Your task to perform on an android device: Open a new incognito window in Chrome Image 0: 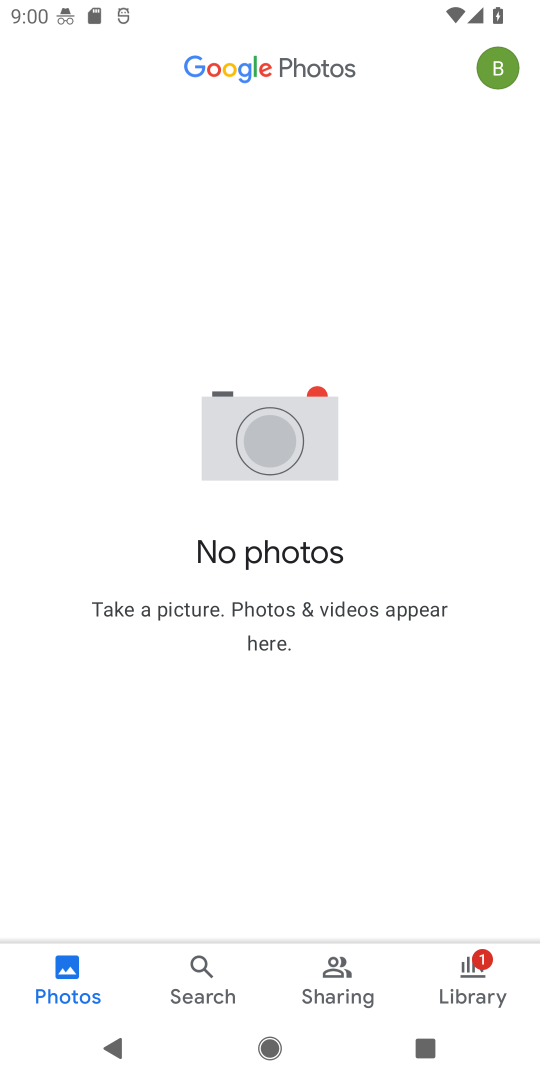
Step 0: press home button
Your task to perform on an android device: Open a new incognito window in Chrome Image 1: 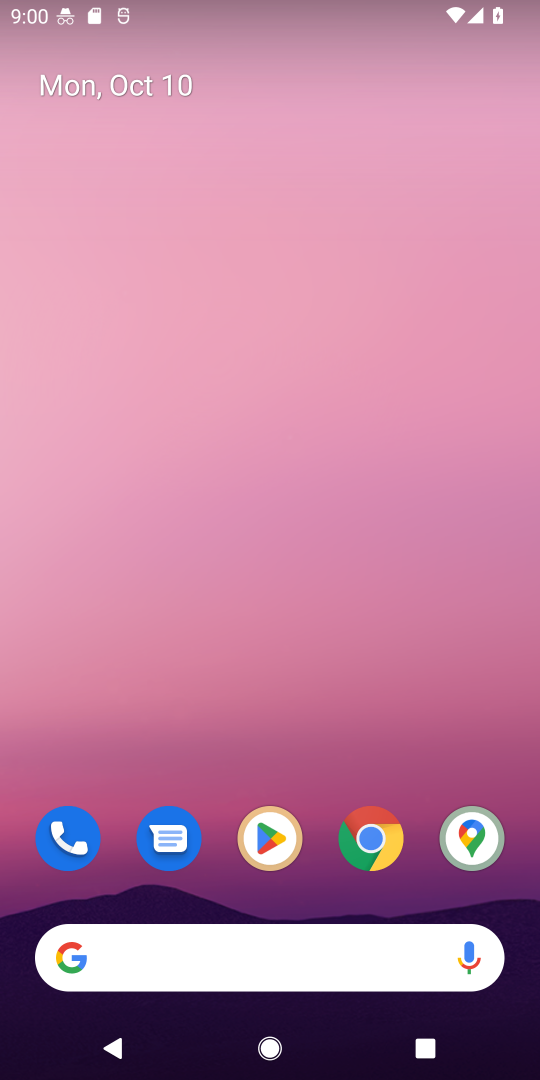
Step 1: click (362, 832)
Your task to perform on an android device: Open a new incognito window in Chrome Image 2: 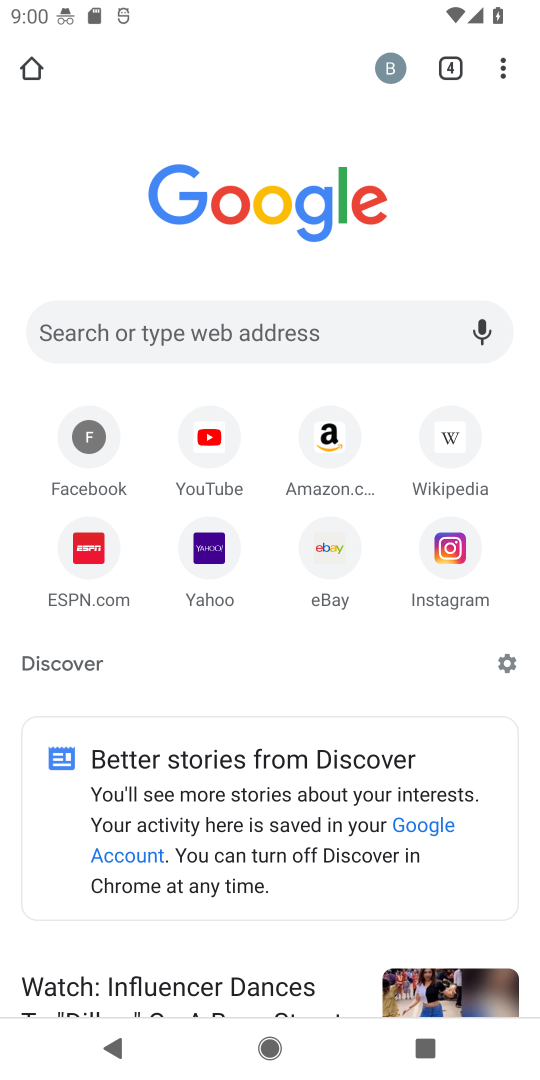
Step 2: click (490, 74)
Your task to perform on an android device: Open a new incognito window in Chrome Image 3: 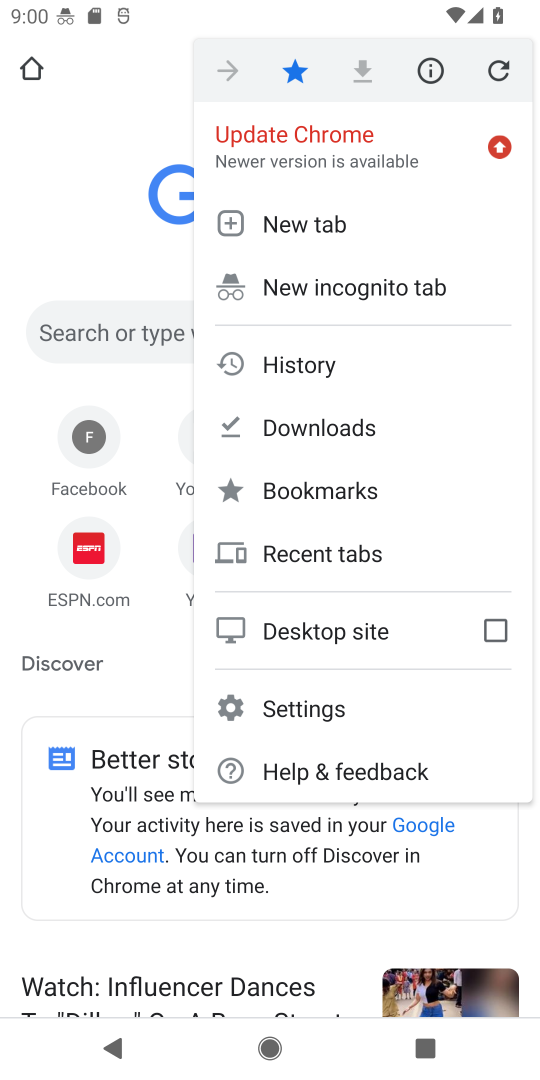
Step 3: click (319, 295)
Your task to perform on an android device: Open a new incognito window in Chrome Image 4: 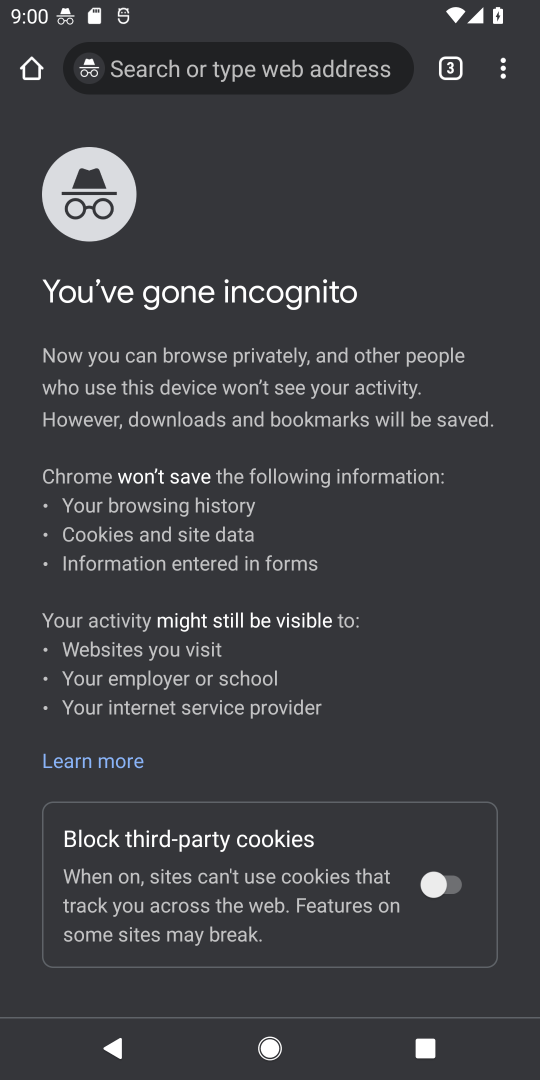
Step 4: task complete